Your task to perform on an android device: Go to battery settings Image 0: 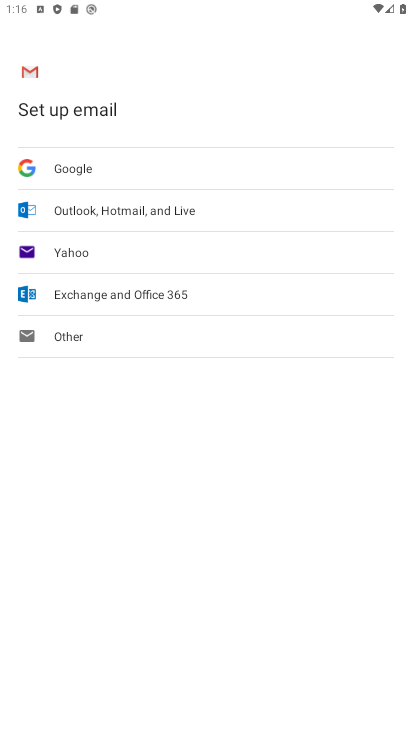
Step 0: press home button
Your task to perform on an android device: Go to battery settings Image 1: 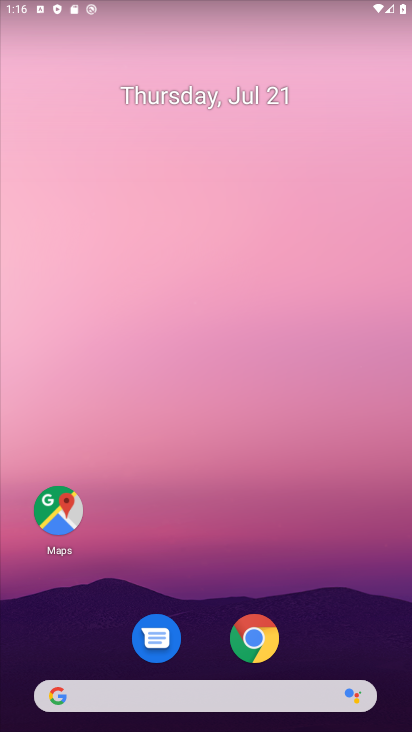
Step 1: drag from (170, 717) to (289, 47)
Your task to perform on an android device: Go to battery settings Image 2: 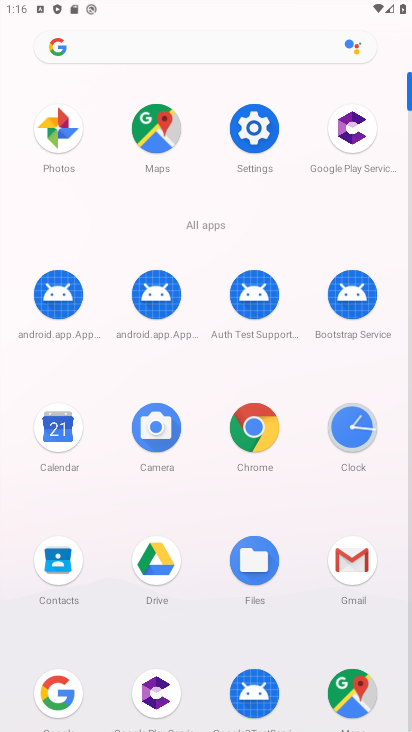
Step 2: click (249, 117)
Your task to perform on an android device: Go to battery settings Image 3: 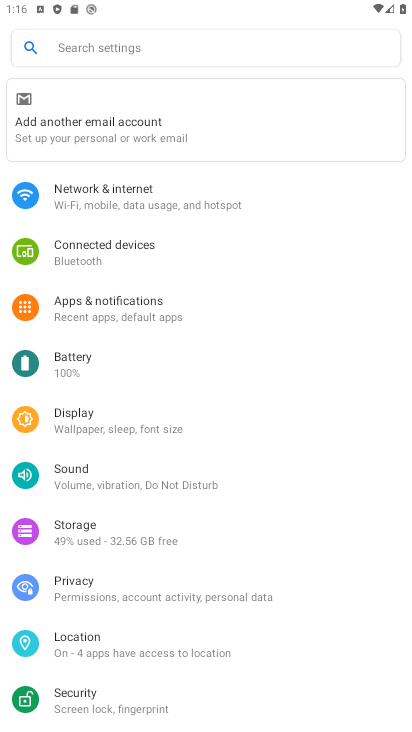
Step 3: click (113, 370)
Your task to perform on an android device: Go to battery settings Image 4: 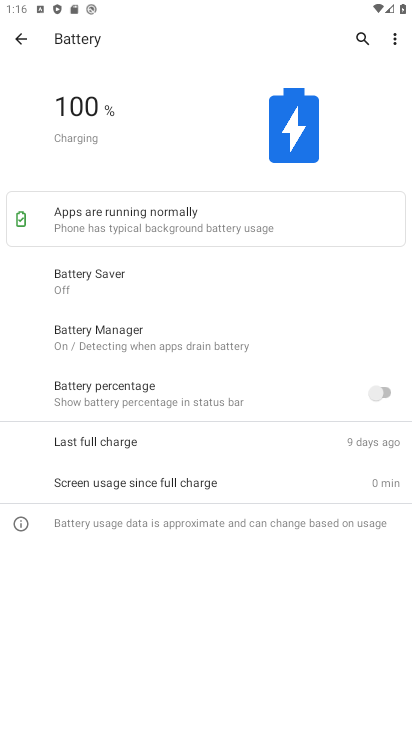
Step 4: task complete